Your task to perform on an android device: Open the stopwatch Image 0: 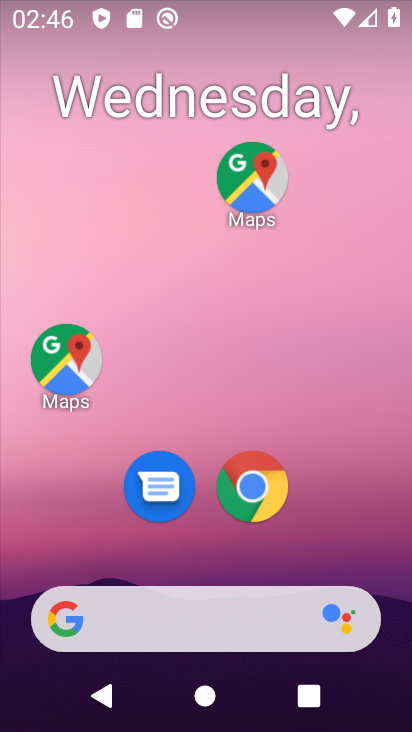
Step 0: drag from (174, 563) to (135, 21)
Your task to perform on an android device: Open the stopwatch Image 1: 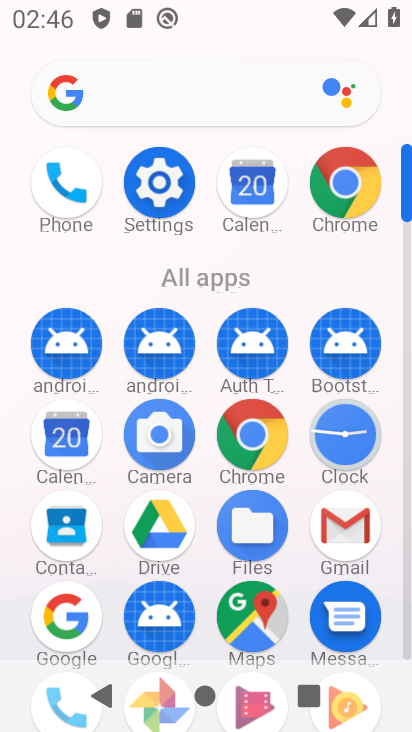
Step 1: click (334, 420)
Your task to perform on an android device: Open the stopwatch Image 2: 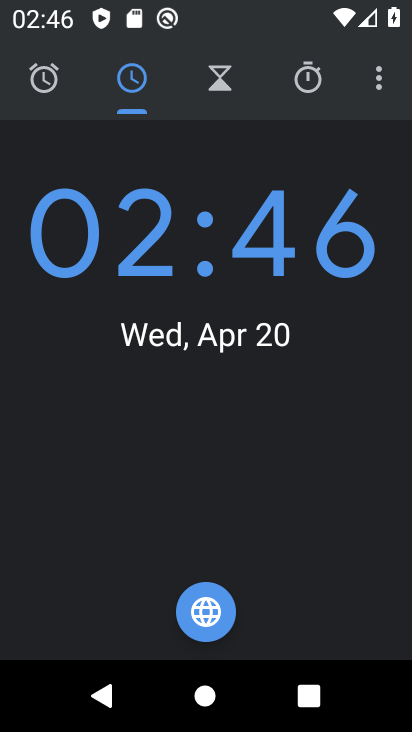
Step 2: click (302, 94)
Your task to perform on an android device: Open the stopwatch Image 3: 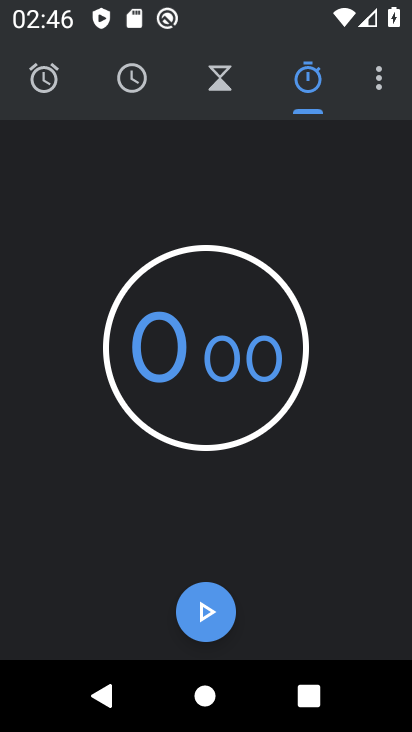
Step 3: click (200, 604)
Your task to perform on an android device: Open the stopwatch Image 4: 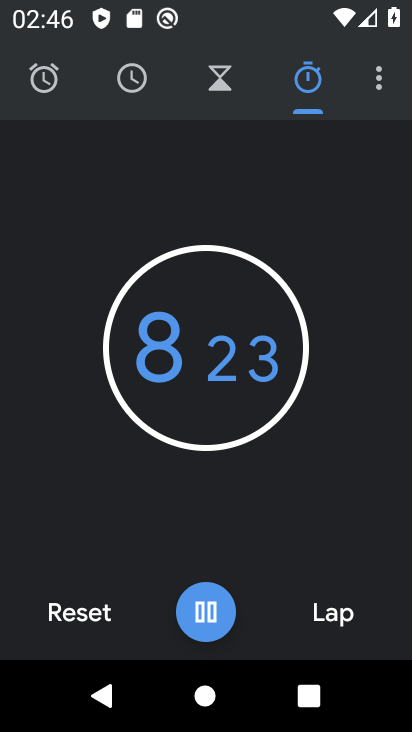
Step 4: click (202, 601)
Your task to perform on an android device: Open the stopwatch Image 5: 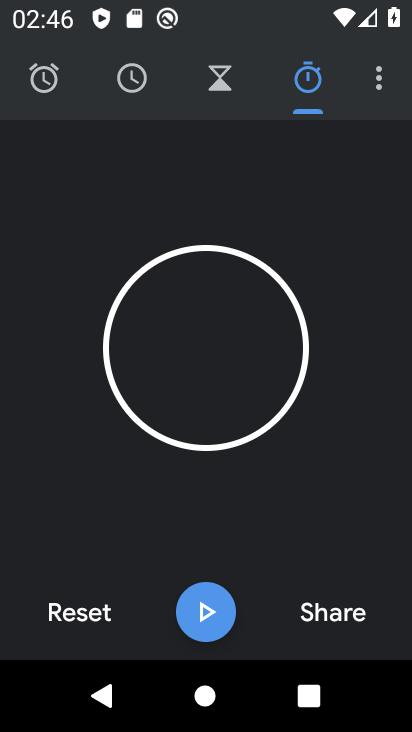
Step 5: task complete